Your task to perform on an android device: Show me the alarms in the clock app Image 0: 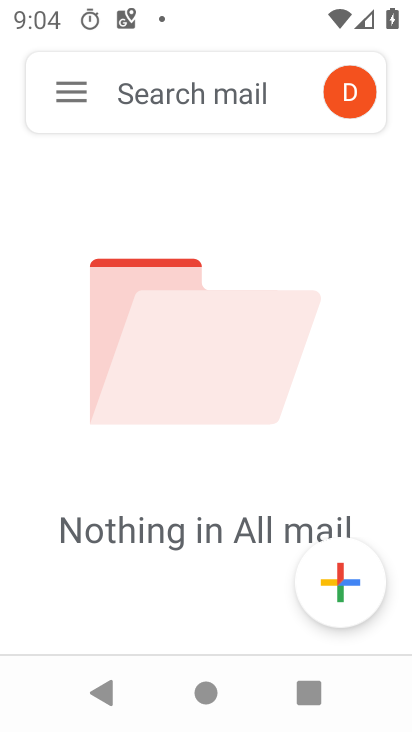
Step 0: press home button
Your task to perform on an android device: Show me the alarms in the clock app Image 1: 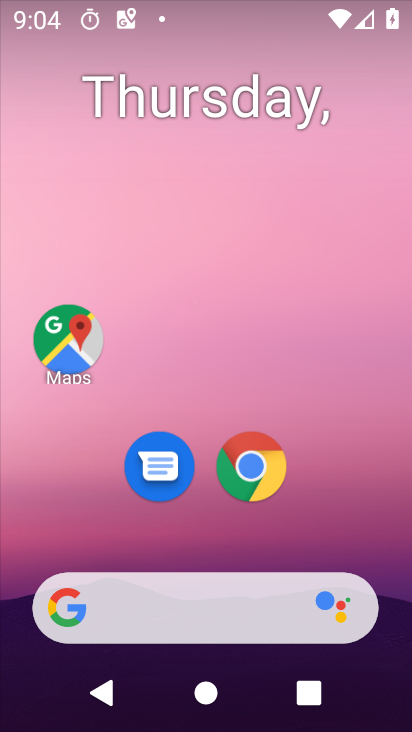
Step 1: drag from (343, 540) to (376, 36)
Your task to perform on an android device: Show me the alarms in the clock app Image 2: 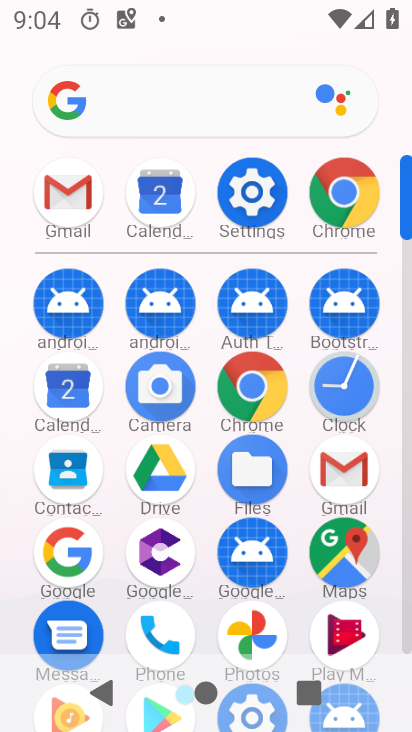
Step 2: click (339, 391)
Your task to perform on an android device: Show me the alarms in the clock app Image 3: 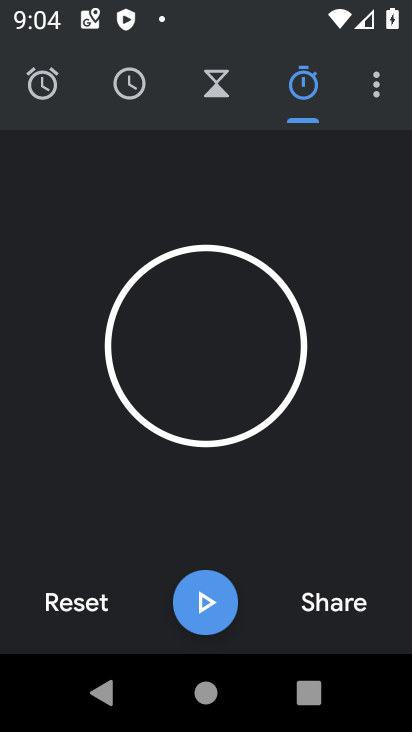
Step 3: click (49, 96)
Your task to perform on an android device: Show me the alarms in the clock app Image 4: 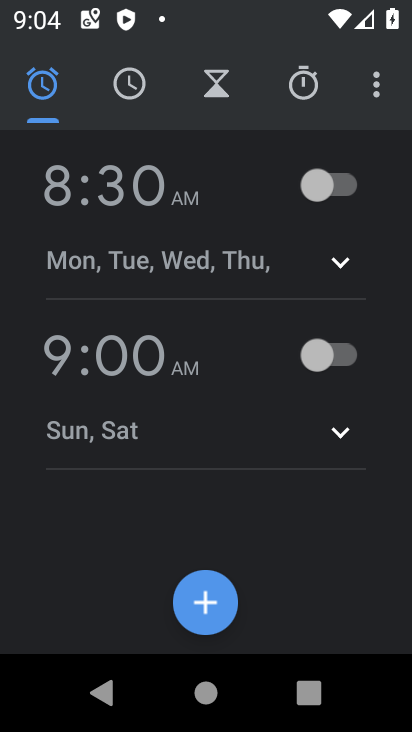
Step 4: task complete